Your task to perform on an android device: check the backup settings in the google photos Image 0: 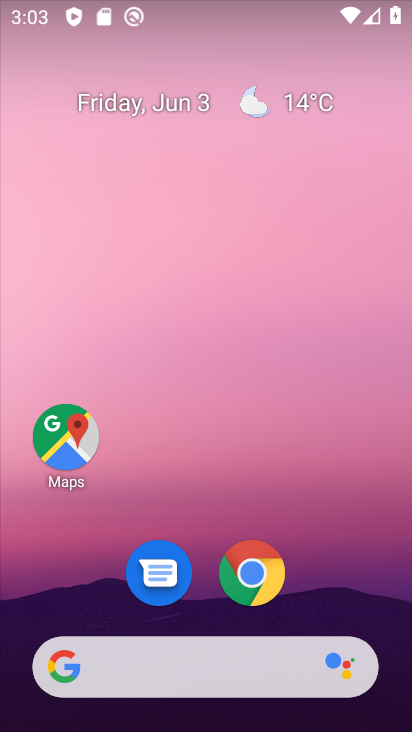
Step 0: drag from (215, 545) to (250, 281)
Your task to perform on an android device: check the backup settings in the google photos Image 1: 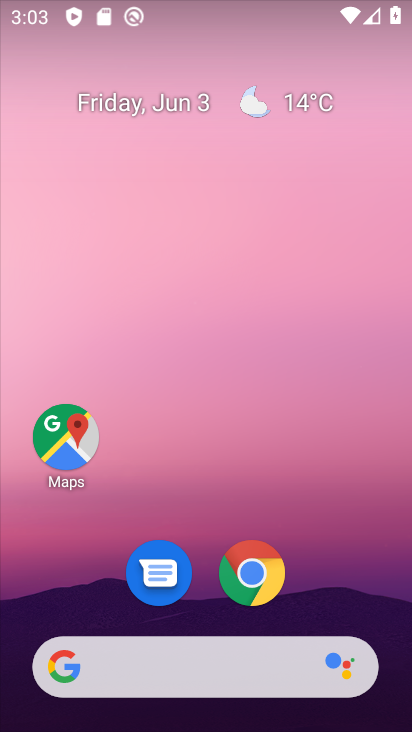
Step 1: drag from (254, 632) to (312, 157)
Your task to perform on an android device: check the backup settings in the google photos Image 2: 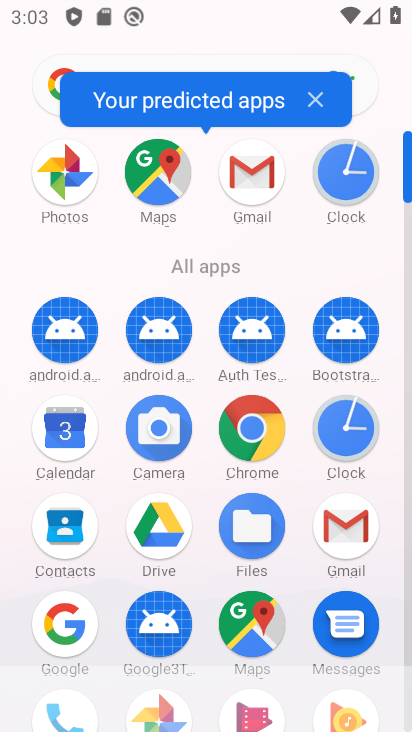
Step 2: drag from (281, 406) to (303, 268)
Your task to perform on an android device: check the backup settings in the google photos Image 3: 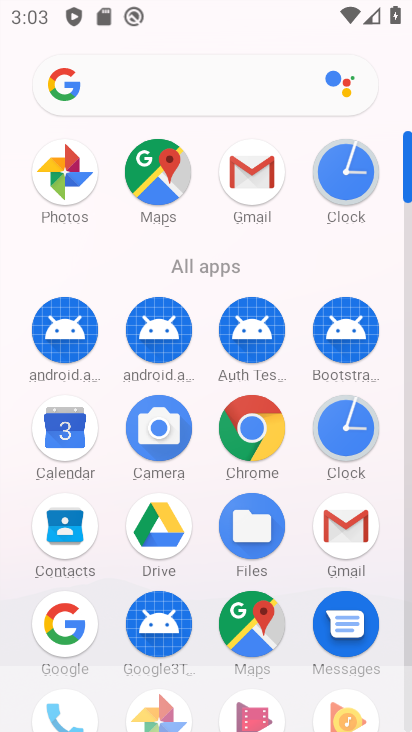
Step 3: click (320, 144)
Your task to perform on an android device: check the backup settings in the google photos Image 4: 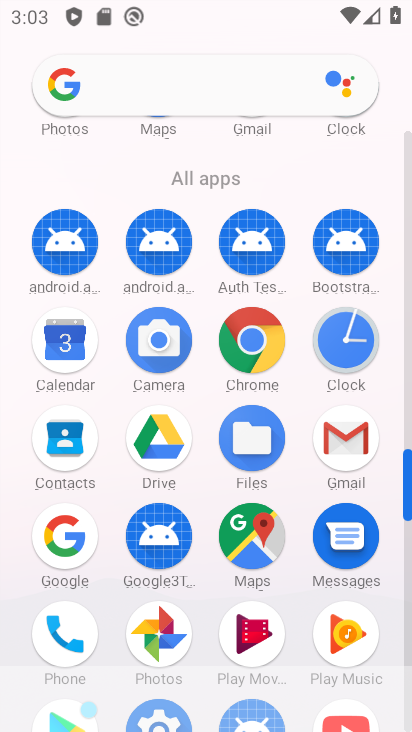
Step 4: drag from (226, 455) to (305, 75)
Your task to perform on an android device: check the backup settings in the google photos Image 5: 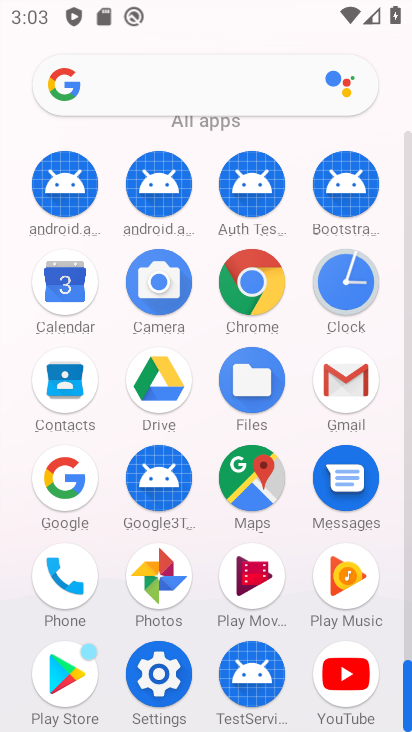
Step 5: click (172, 581)
Your task to perform on an android device: check the backup settings in the google photos Image 6: 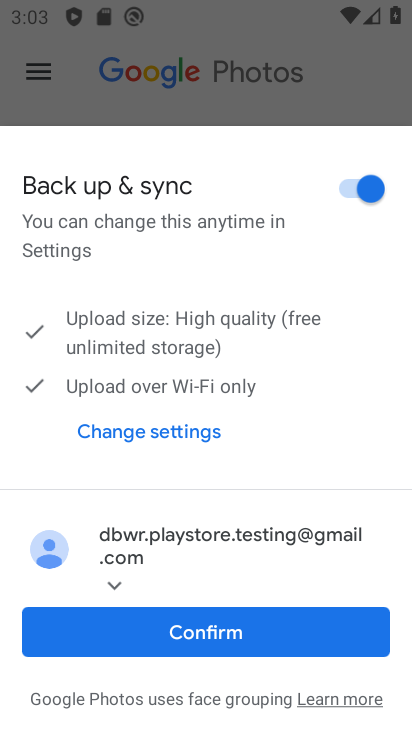
Step 6: click (286, 620)
Your task to perform on an android device: check the backup settings in the google photos Image 7: 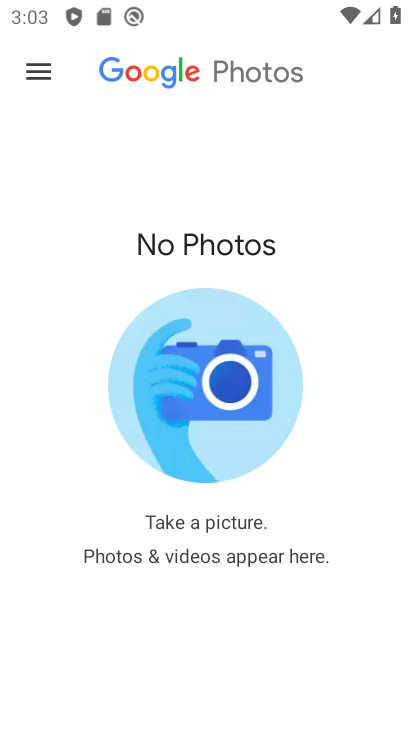
Step 7: click (33, 71)
Your task to perform on an android device: check the backup settings in the google photos Image 8: 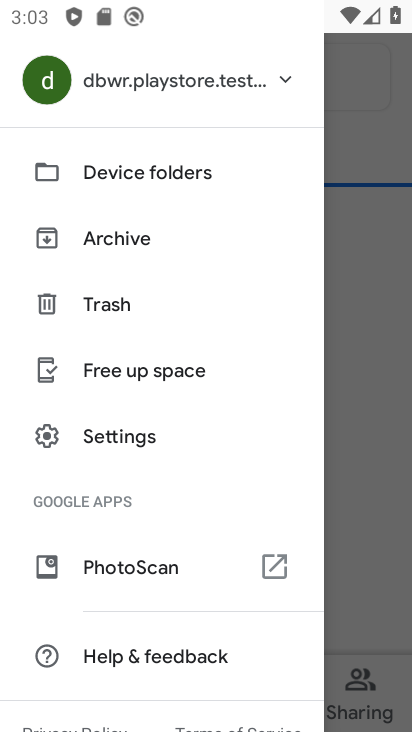
Step 8: drag from (139, 325) to (164, 234)
Your task to perform on an android device: check the backup settings in the google photos Image 9: 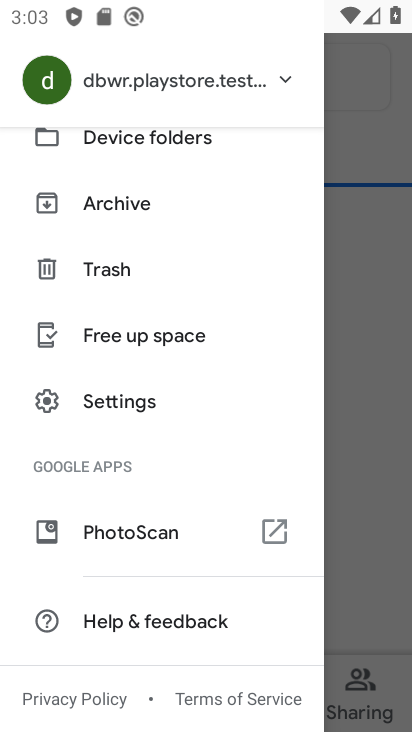
Step 9: click (148, 412)
Your task to perform on an android device: check the backup settings in the google photos Image 10: 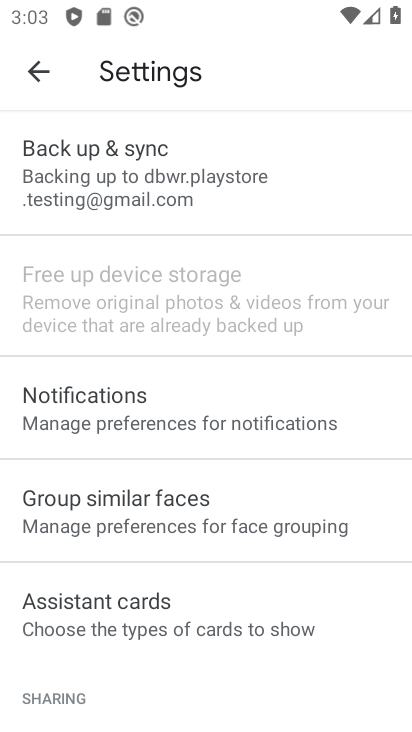
Step 10: click (168, 189)
Your task to perform on an android device: check the backup settings in the google photos Image 11: 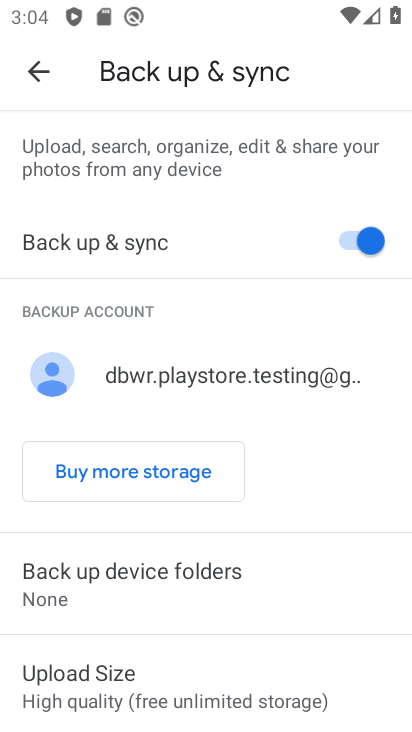
Step 11: task complete